Your task to perform on an android device: delete browsing data in the chrome app Image 0: 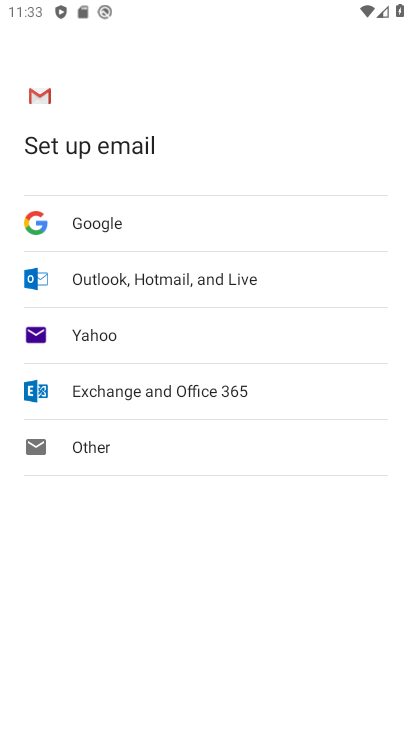
Step 0: press home button
Your task to perform on an android device: delete browsing data in the chrome app Image 1: 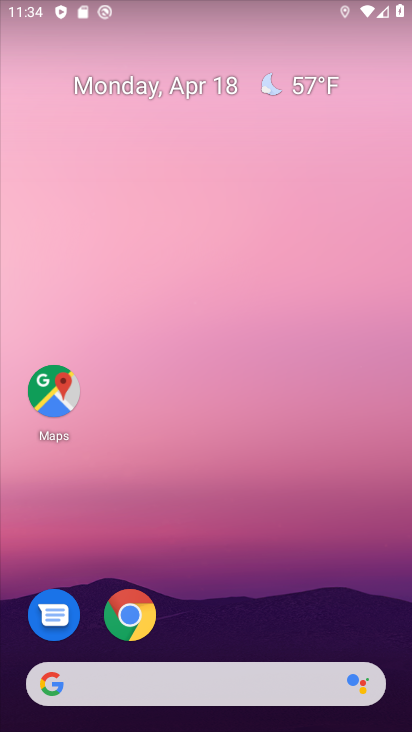
Step 1: click (123, 614)
Your task to perform on an android device: delete browsing data in the chrome app Image 2: 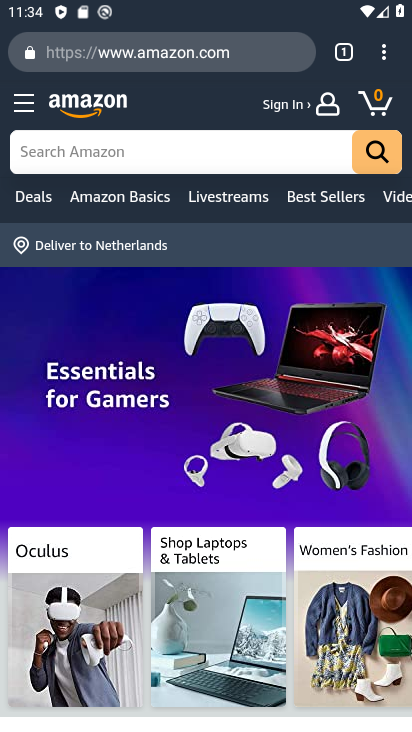
Step 2: click (386, 51)
Your task to perform on an android device: delete browsing data in the chrome app Image 3: 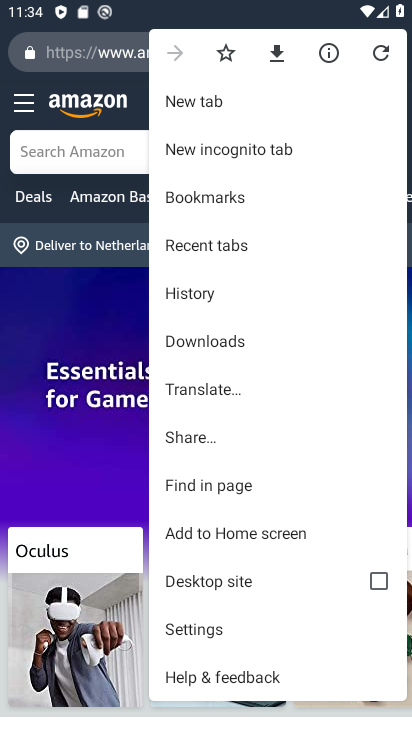
Step 3: click (215, 287)
Your task to perform on an android device: delete browsing data in the chrome app Image 4: 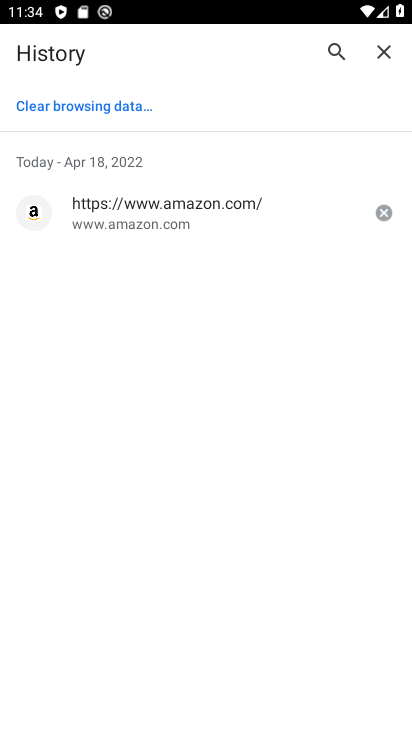
Step 4: click (79, 106)
Your task to perform on an android device: delete browsing data in the chrome app Image 5: 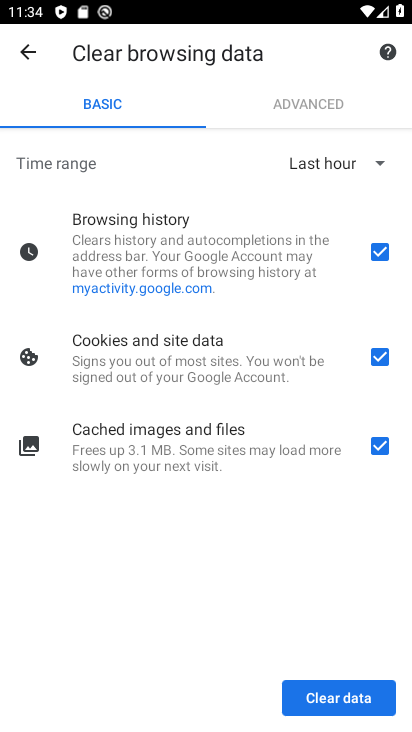
Step 5: click (350, 688)
Your task to perform on an android device: delete browsing data in the chrome app Image 6: 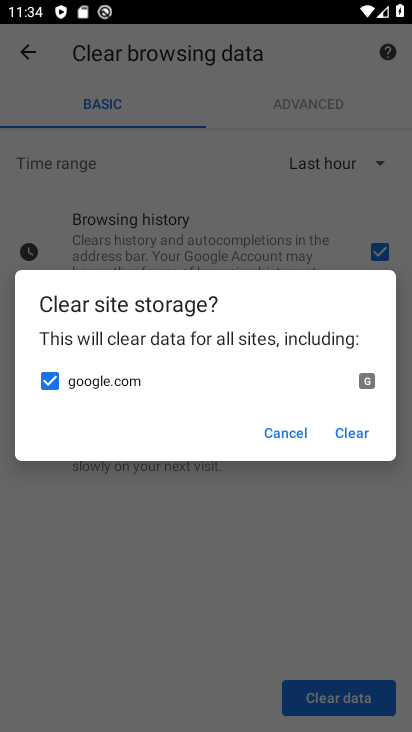
Step 6: click (356, 427)
Your task to perform on an android device: delete browsing data in the chrome app Image 7: 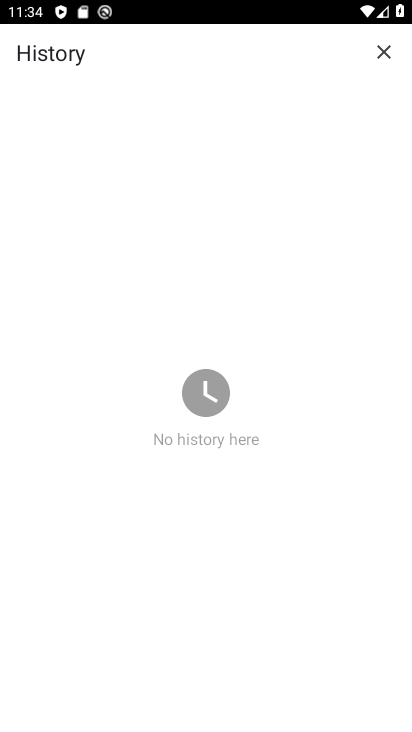
Step 7: task complete